Your task to perform on an android device: turn notification dots on Image 0: 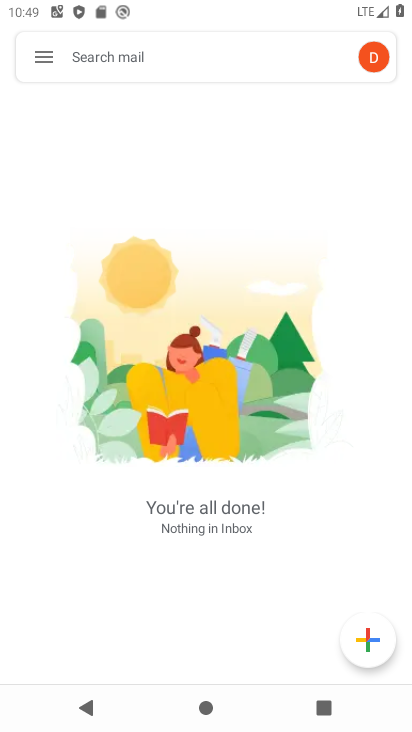
Step 0: press back button
Your task to perform on an android device: turn notification dots on Image 1: 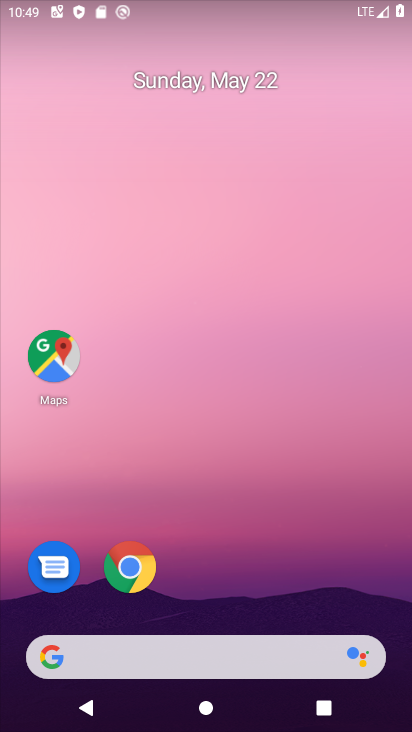
Step 1: drag from (255, 497) to (249, 1)
Your task to perform on an android device: turn notification dots on Image 2: 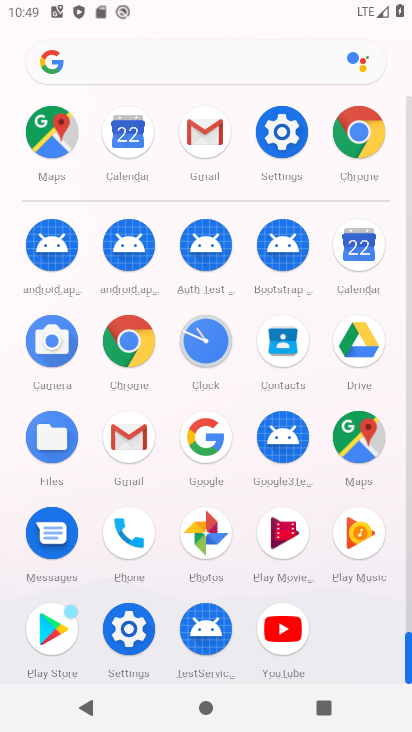
Step 2: click (282, 132)
Your task to perform on an android device: turn notification dots on Image 3: 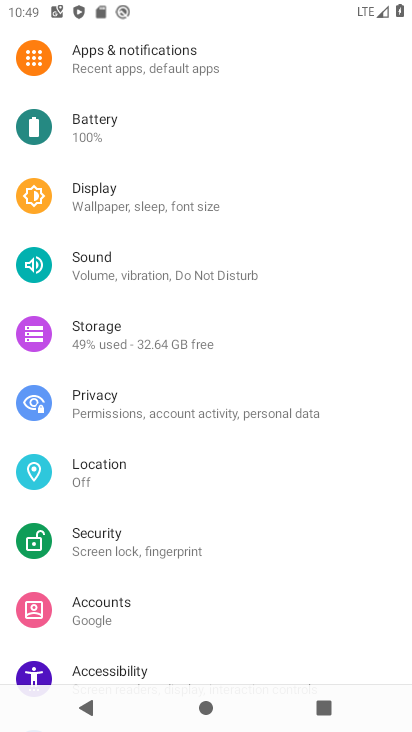
Step 3: click (139, 57)
Your task to perform on an android device: turn notification dots on Image 4: 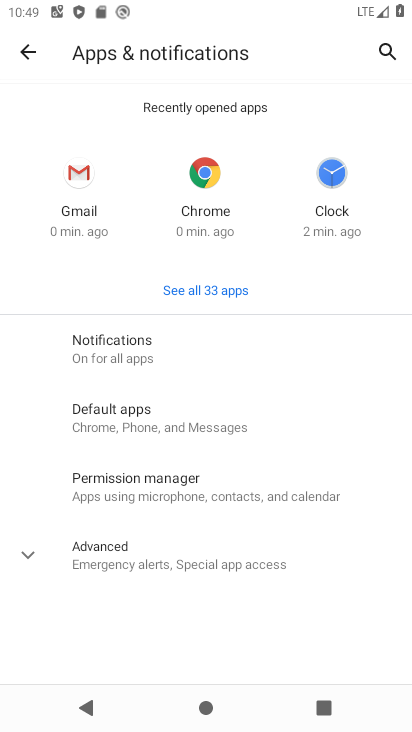
Step 4: click (54, 557)
Your task to perform on an android device: turn notification dots on Image 5: 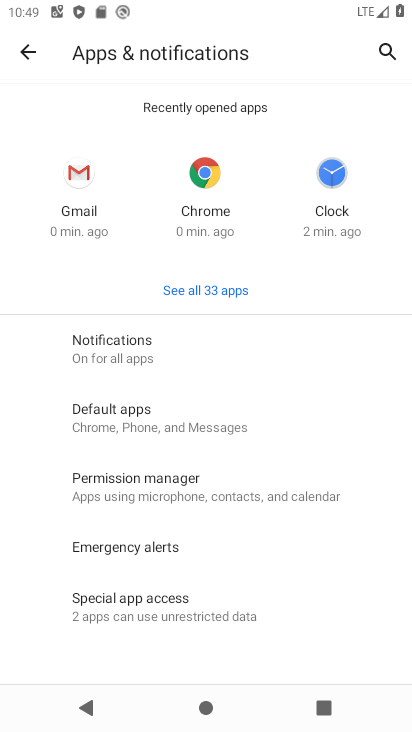
Step 5: click (155, 351)
Your task to perform on an android device: turn notification dots on Image 6: 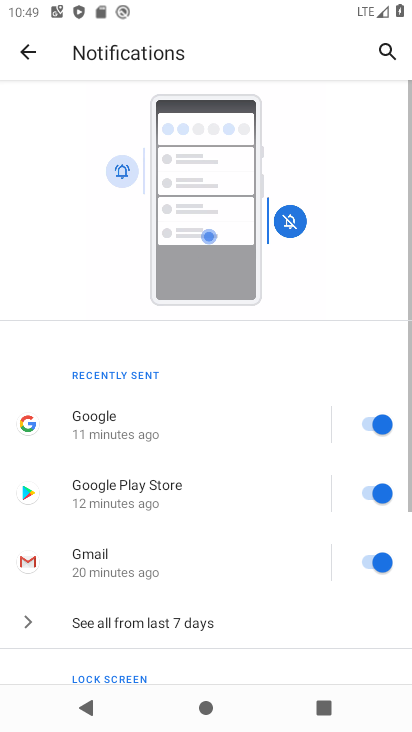
Step 6: drag from (236, 588) to (275, 113)
Your task to perform on an android device: turn notification dots on Image 7: 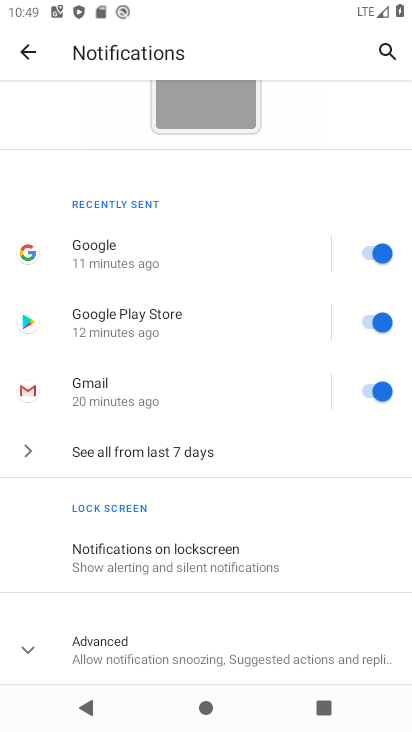
Step 7: click (171, 633)
Your task to perform on an android device: turn notification dots on Image 8: 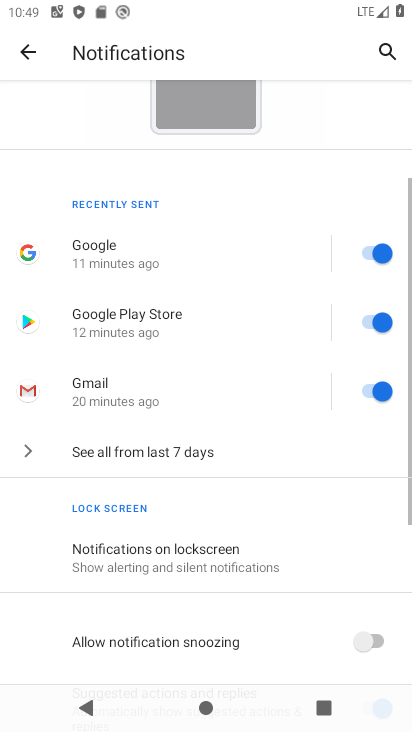
Step 8: task complete